Your task to perform on an android device: open wifi settings Image 0: 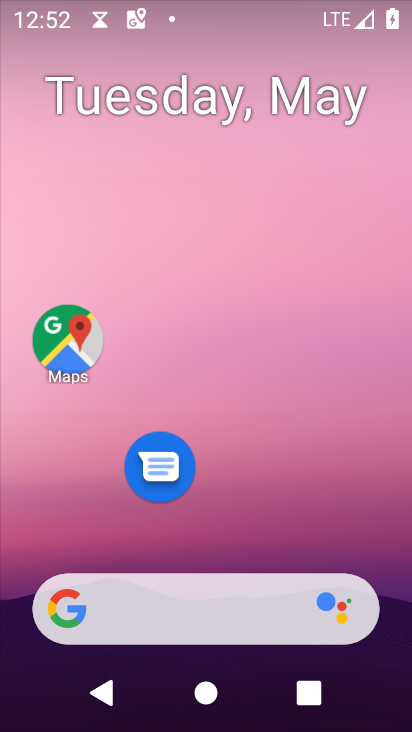
Step 0: drag from (245, 535) to (252, 159)
Your task to perform on an android device: open wifi settings Image 1: 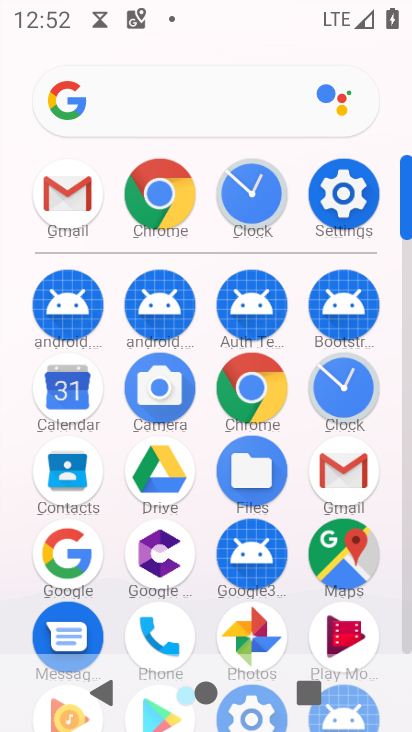
Step 1: click (346, 202)
Your task to perform on an android device: open wifi settings Image 2: 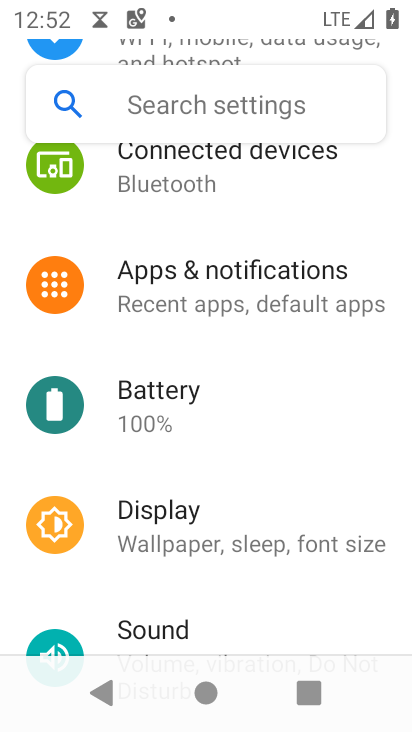
Step 2: drag from (285, 218) to (259, 636)
Your task to perform on an android device: open wifi settings Image 3: 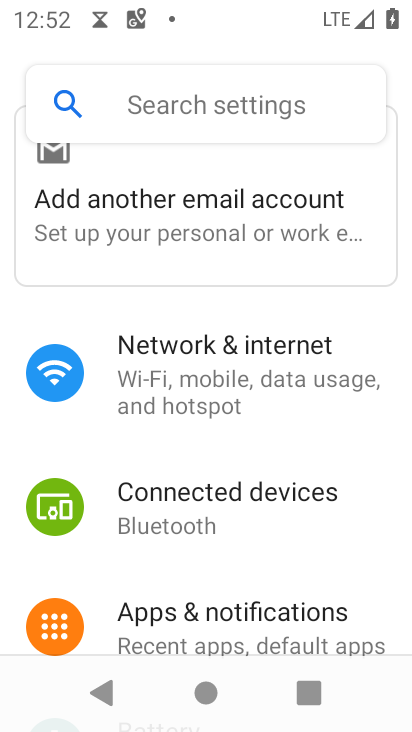
Step 3: click (224, 375)
Your task to perform on an android device: open wifi settings Image 4: 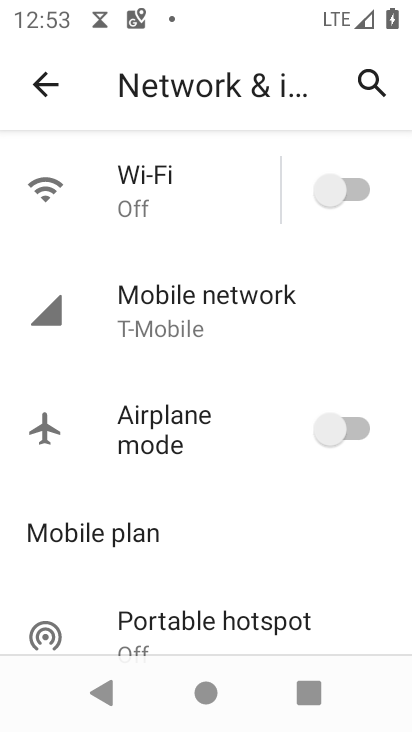
Step 4: click (191, 193)
Your task to perform on an android device: open wifi settings Image 5: 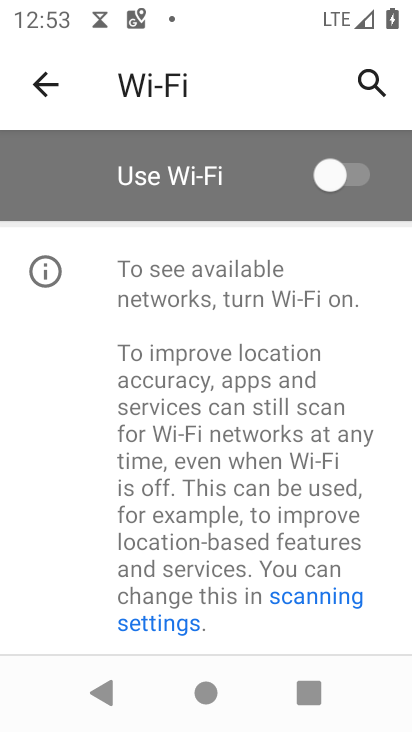
Step 5: task complete